Your task to perform on an android device: How do I get to the nearest Target? Image 0: 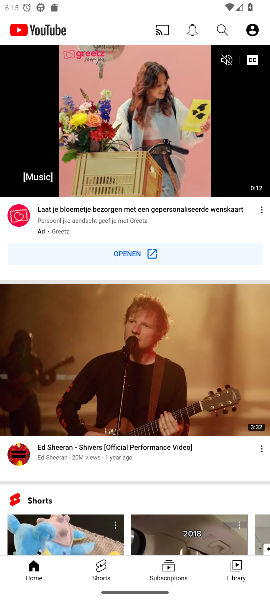
Step 0: press home button
Your task to perform on an android device: How do I get to the nearest Target? Image 1: 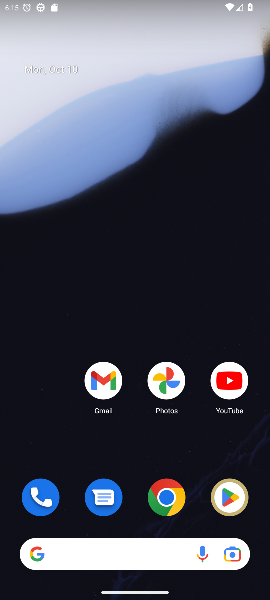
Step 1: drag from (131, 472) to (146, 238)
Your task to perform on an android device: How do I get to the nearest Target? Image 2: 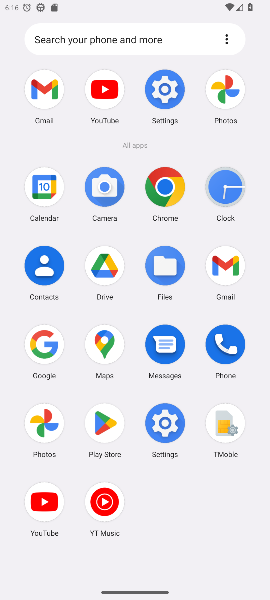
Step 2: click (40, 339)
Your task to perform on an android device: How do I get to the nearest Target? Image 3: 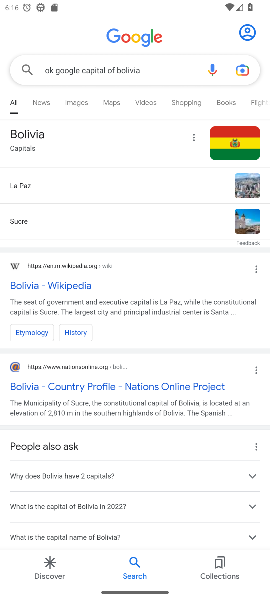
Step 3: click (153, 65)
Your task to perform on an android device: How do I get to the nearest Target? Image 4: 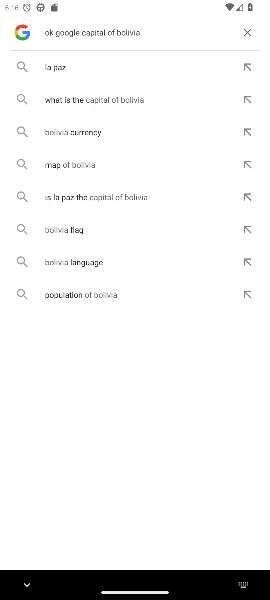
Step 4: click (245, 32)
Your task to perform on an android device: How do I get to the nearest Target? Image 5: 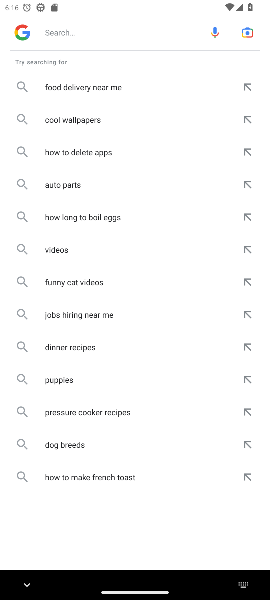
Step 5: click (110, 27)
Your task to perform on an android device: How do I get to the nearest Target? Image 6: 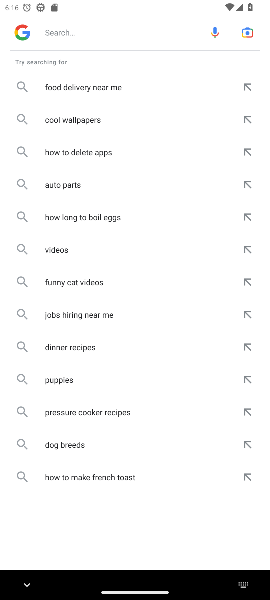
Step 6: type "How do I get to the nearest Target? "
Your task to perform on an android device: How do I get to the nearest Target? Image 7: 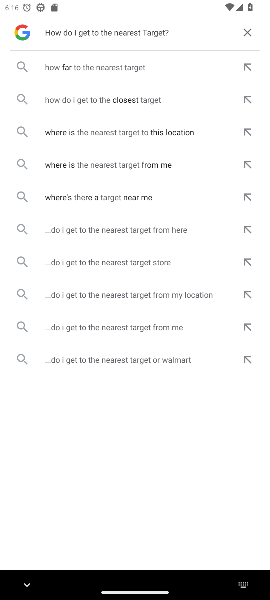
Step 7: click (81, 68)
Your task to perform on an android device: How do I get to the nearest Target? Image 8: 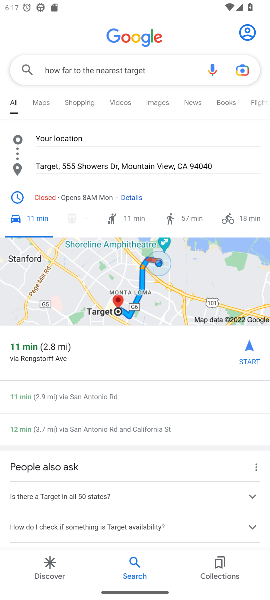
Step 8: task complete